Your task to perform on an android device: turn off smart reply in the gmail app Image 0: 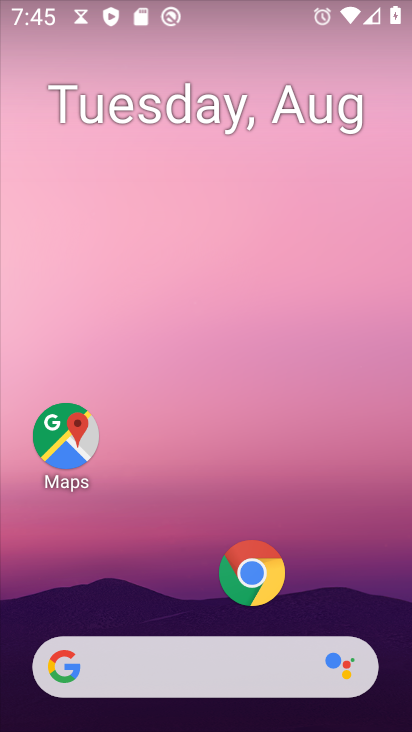
Step 0: press home button
Your task to perform on an android device: turn off smart reply in the gmail app Image 1: 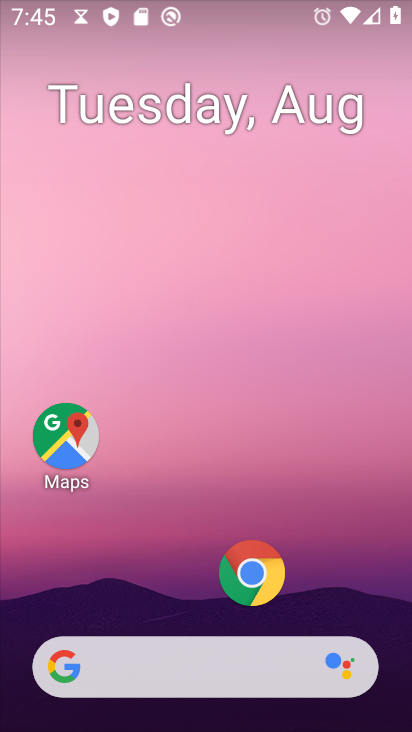
Step 1: drag from (183, 599) to (184, 28)
Your task to perform on an android device: turn off smart reply in the gmail app Image 2: 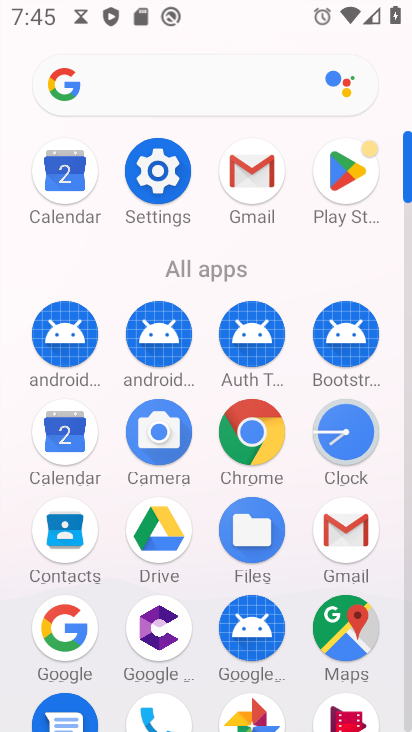
Step 2: click (249, 167)
Your task to perform on an android device: turn off smart reply in the gmail app Image 3: 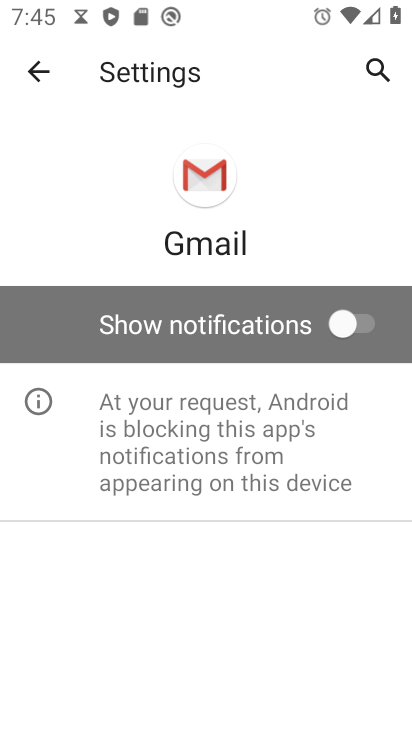
Step 3: click (39, 67)
Your task to perform on an android device: turn off smart reply in the gmail app Image 4: 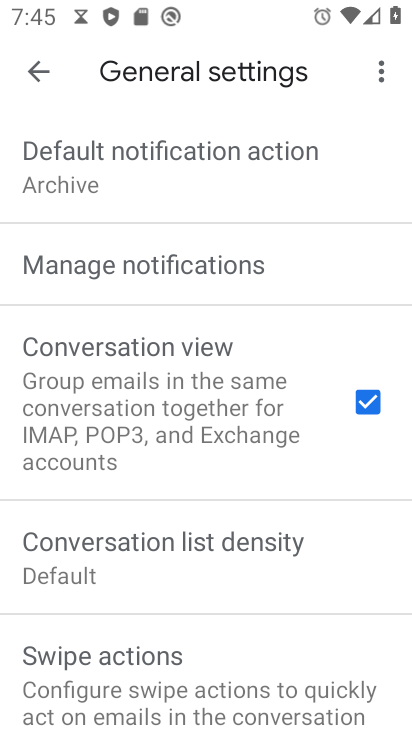
Step 4: click (29, 72)
Your task to perform on an android device: turn off smart reply in the gmail app Image 5: 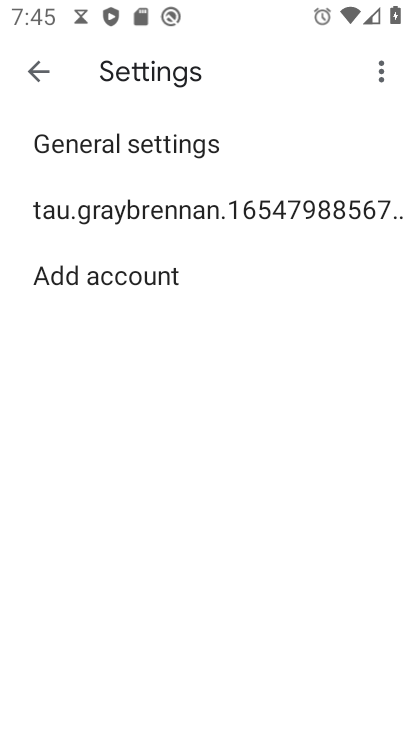
Step 5: click (126, 203)
Your task to perform on an android device: turn off smart reply in the gmail app Image 6: 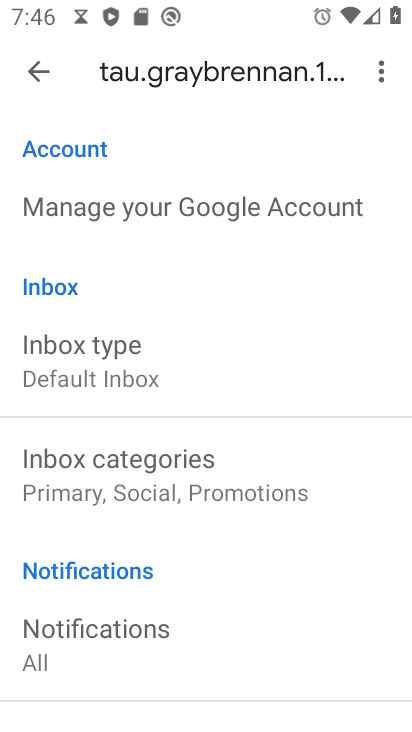
Step 6: drag from (183, 639) to (212, 11)
Your task to perform on an android device: turn off smart reply in the gmail app Image 7: 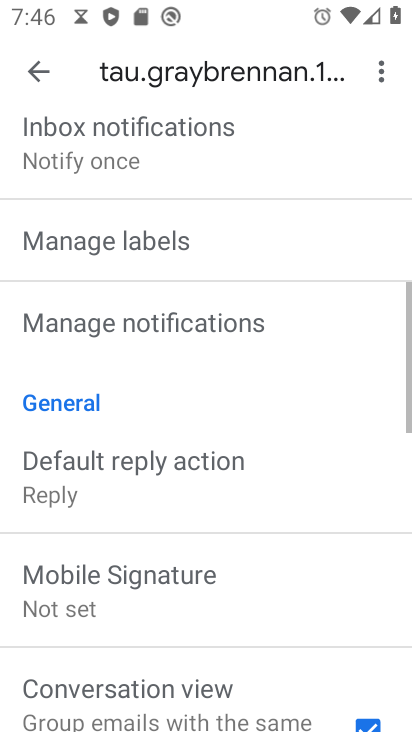
Step 7: drag from (237, 669) to (270, 153)
Your task to perform on an android device: turn off smart reply in the gmail app Image 8: 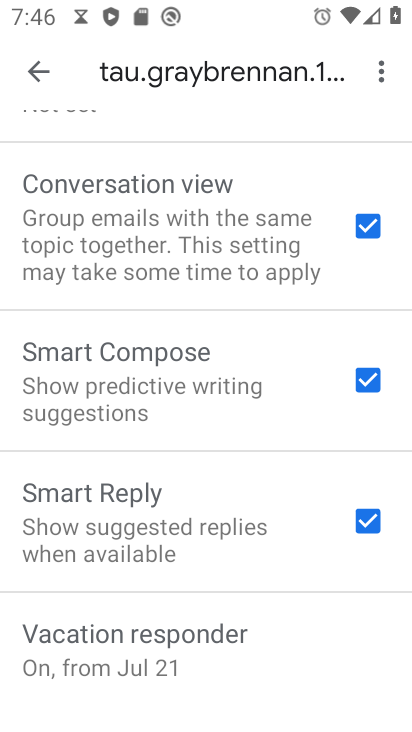
Step 8: click (371, 520)
Your task to perform on an android device: turn off smart reply in the gmail app Image 9: 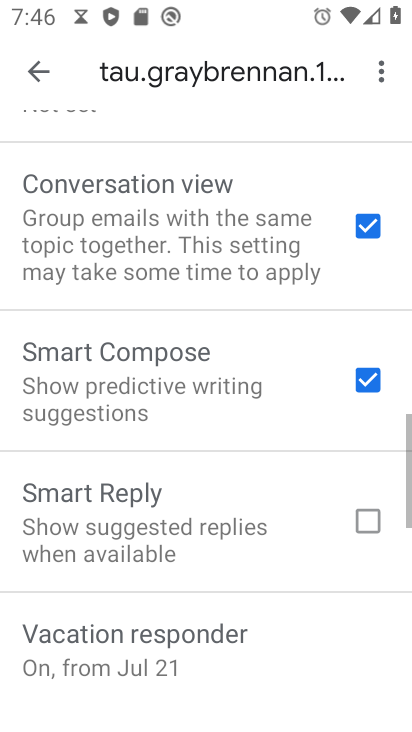
Step 9: task complete